Your task to perform on an android device: check the backup settings in the google photos Image 0: 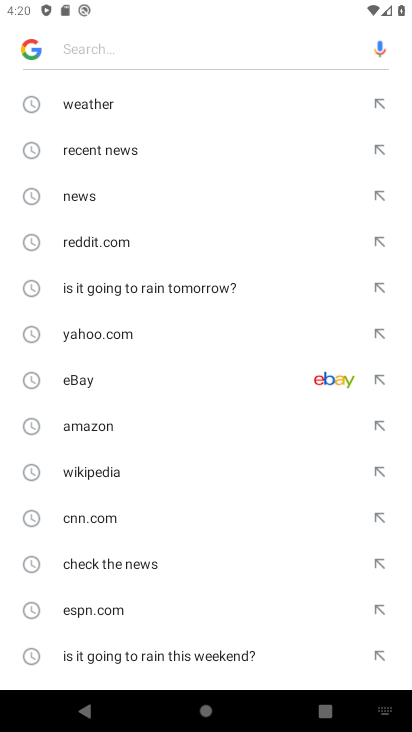
Step 0: drag from (175, 636) to (215, 454)
Your task to perform on an android device: check the backup settings in the google photos Image 1: 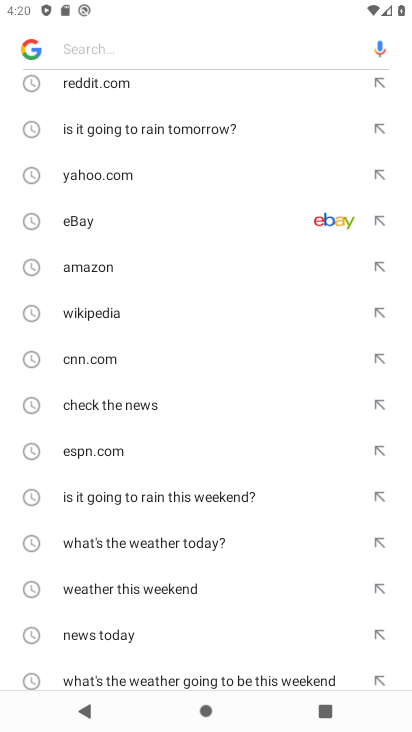
Step 1: task complete